Your task to perform on an android device: Go to calendar. Show me events next week Image 0: 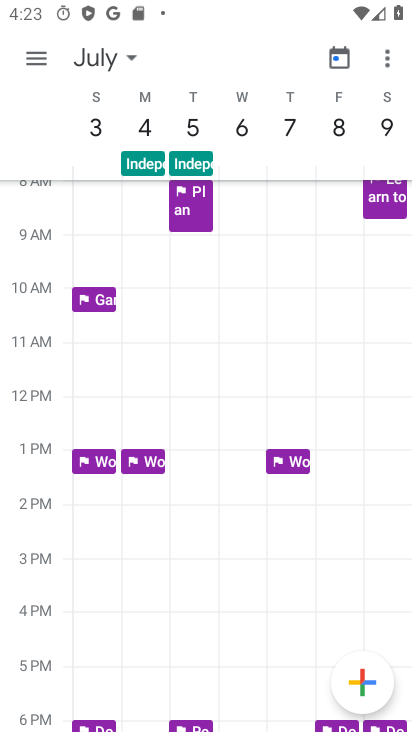
Step 0: press home button
Your task to perform on an android device: Go to calendar. Show me events next week Image 1: 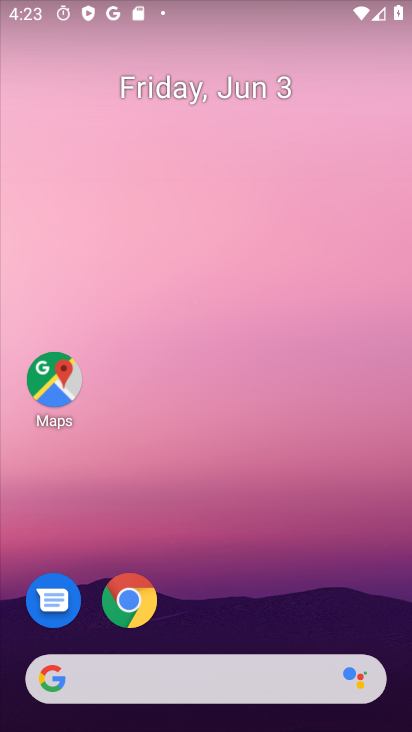
Step 1: drag from (401, 694) to (299, 93)
Your task to perform on an android device: Go to calendar. Show me events next week Image 2: 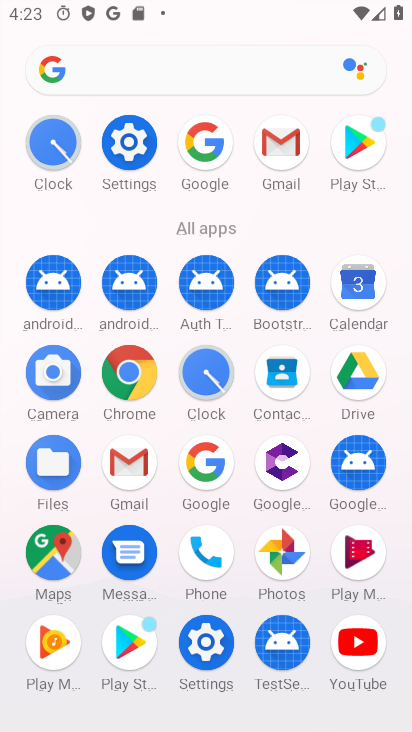
Step 2: click (359, 284)
Your task to perform on an android device: Go to calendar. Show me events next week Image 3: 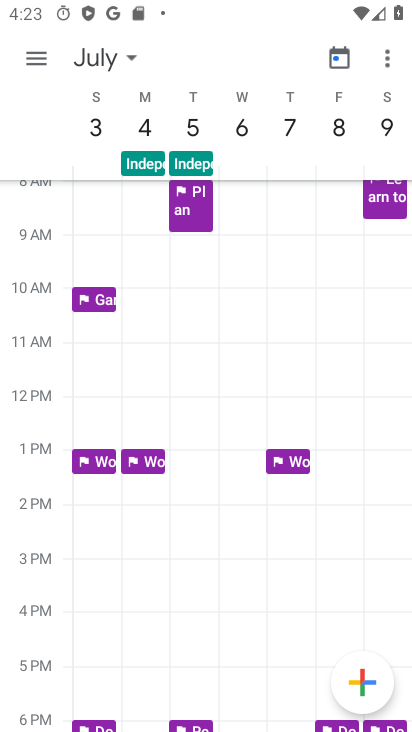
Step 3: click (124, 60)
Your task to perform on an android device: Go to calendar. Show me events next week Image 4: 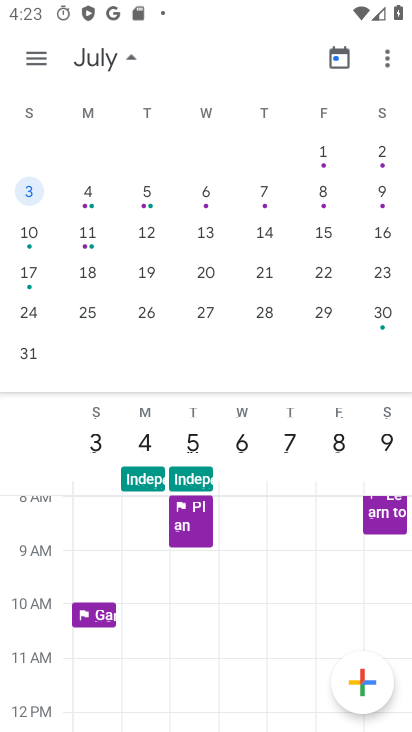
Step 4: drag from (63, 155) to (377, 154)
Your task to perform on an android device: Go to calendar. Show me events next week Image 5: 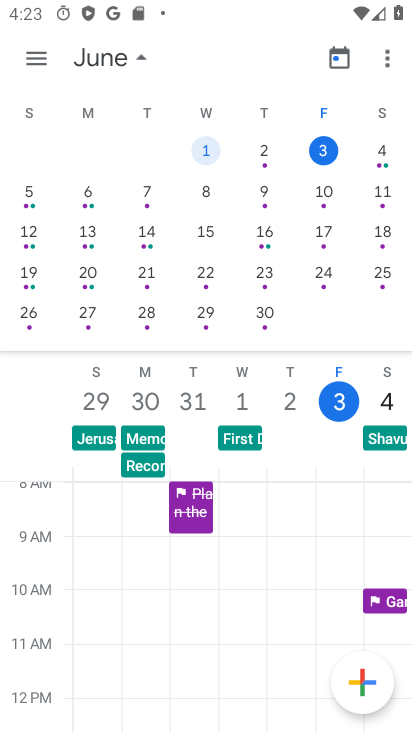
Step 5: click (260, 192)
Your task to perform on an android device: Go to calendar. Show me events next week Image 6: 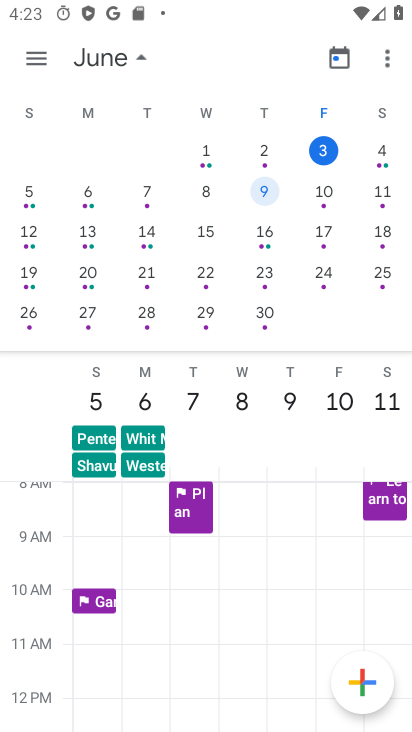
Step 6: click (38, 59)
Your task to perform on an android device: Go to calendar. Show me events next week Image 7: 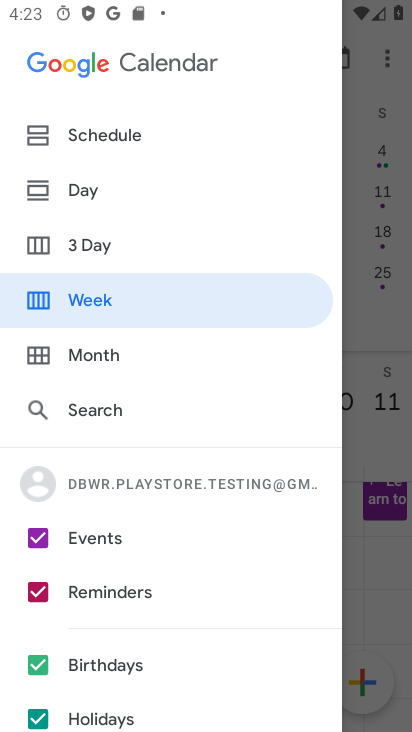
Step 7: click (79, 295)
Your task to perform on an android device: Go to calendar. Show me events next week Image 8: 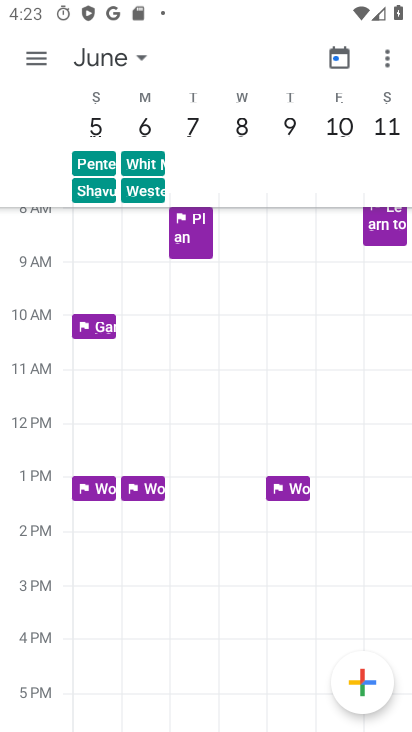
Step 8: click (31, 49)
Your task to perform on an android device: Go to calendar. Show me events next week Image 9: 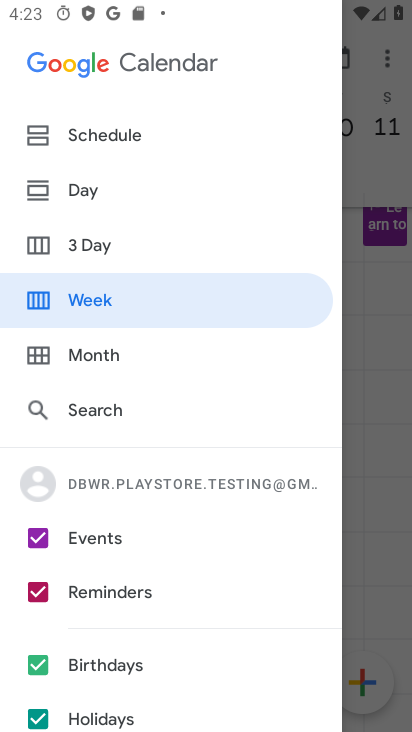
Step 9: click (78, 128)
Your task to perform on an android device: Go to calendar. Show me events next week Image 10: 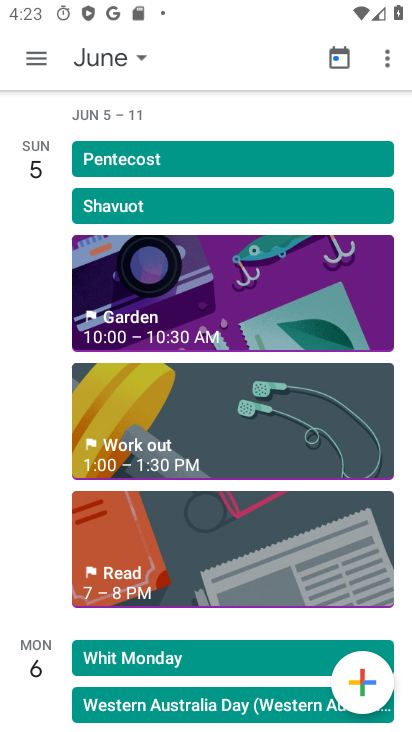
Step 10: task complete